Your task to perform on an android device: choose inbox layout in the gmail app Image 0: 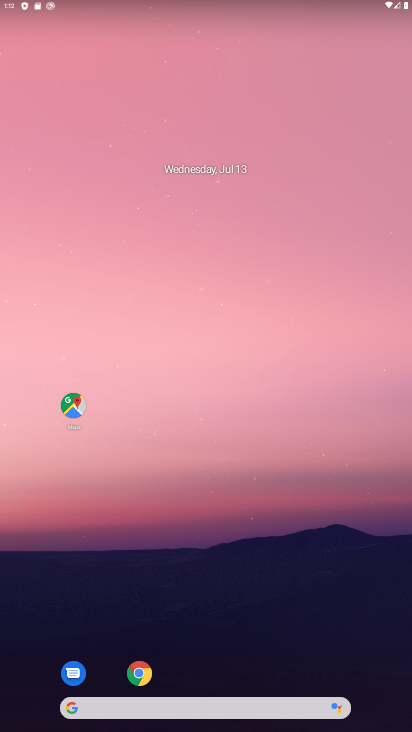
Step 0: drag from (203, 634) to (23, 445)
Your task to perform on an android device: choose inbox layout in the gmail app Image 1: 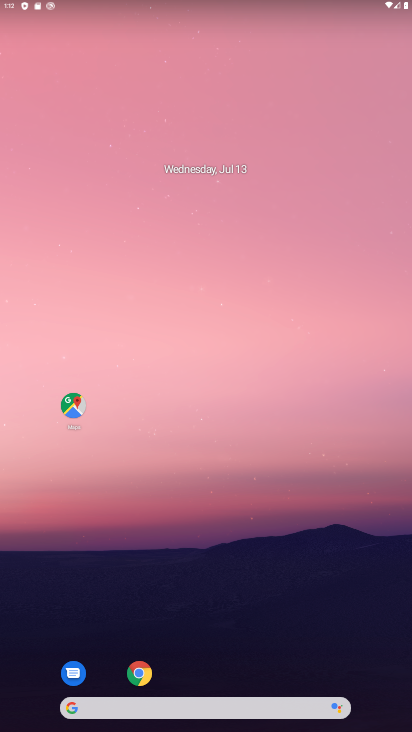
Step 1: click (128, 399)
Your task to perform on an android device: choose inbox layout in the gmail app Image 2: 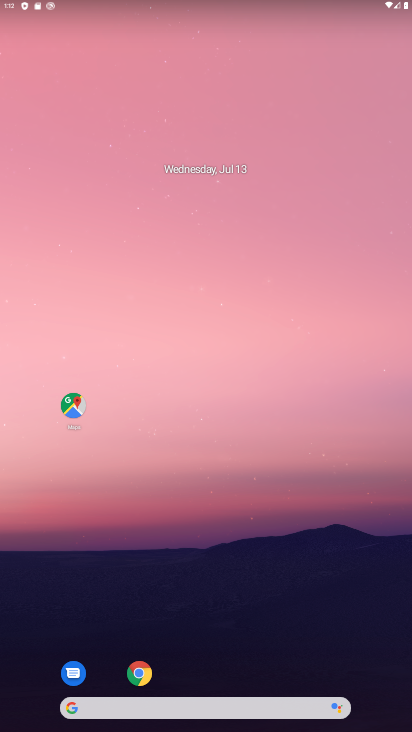
Step 2: drag from (226, 655) to (175, 92)
Your task to perform on an android device: choose inbox layout in the gmail app Image 3: 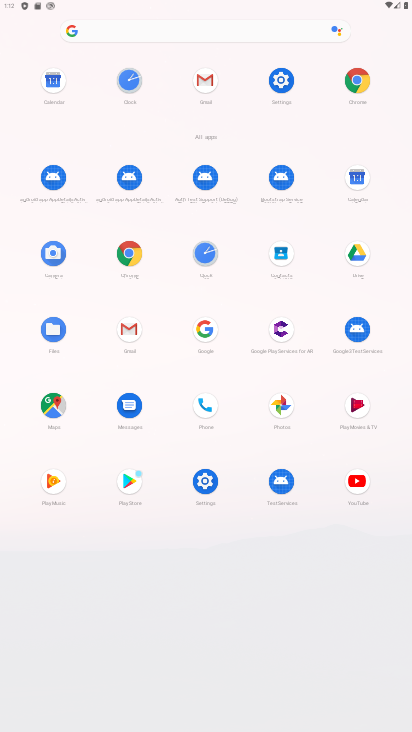
Step 3: click (128, 338)
Your task to perform on an android device: choose inbox layout in the gmail app Image 4: 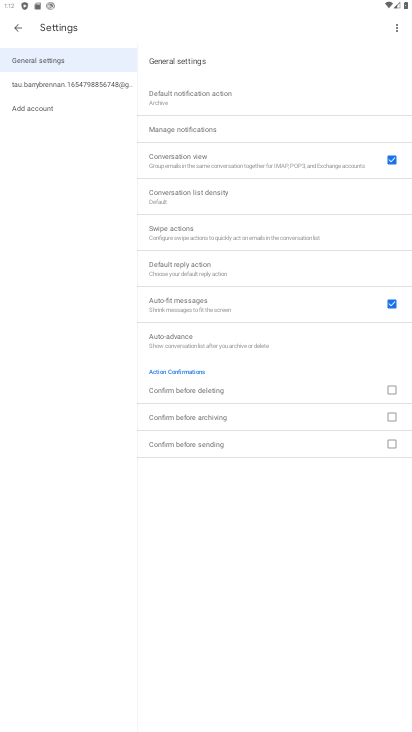
Step 4: click (66, 84)
Your task to perform on an android device: choose inbox layout in the gmail app Image 5: 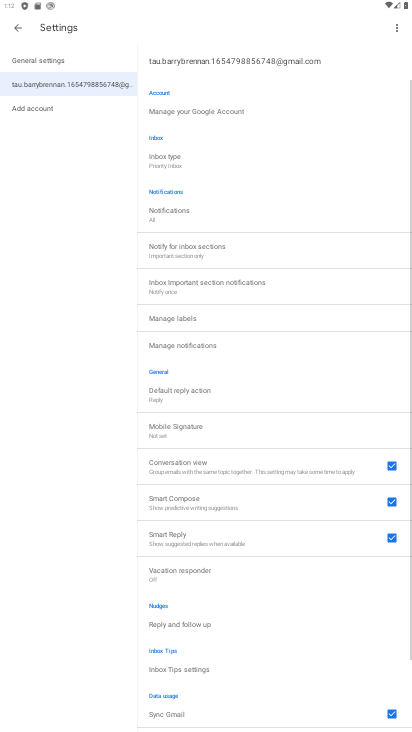
Step 5: click (169, 160)
Your task to perform on an android device: choose inbox layout in the gmail app Image 6: 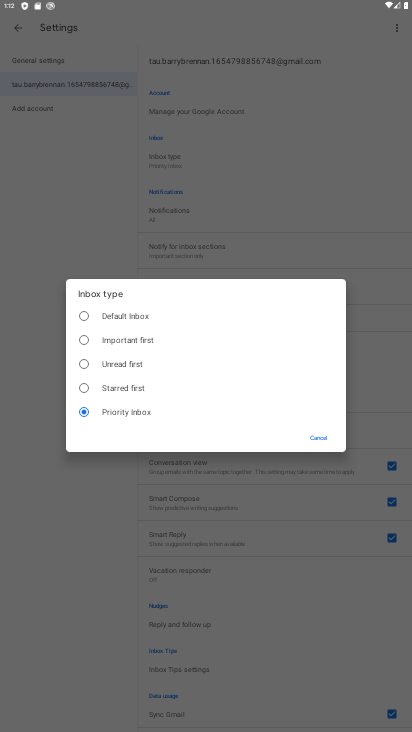
Step 6: click (122, 317)
Your task to perform on an android device: choose inbox layout in the gmail app Image 7: 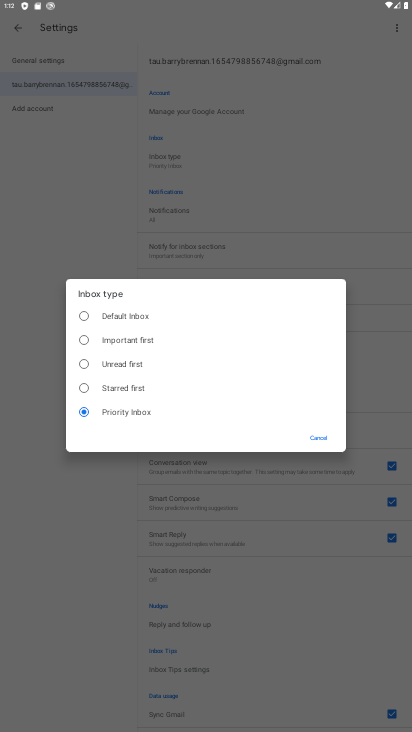
Step 7: click (70, 191)
Your task to perform on an android device: choose inbox layout in the gmail app Image 8: 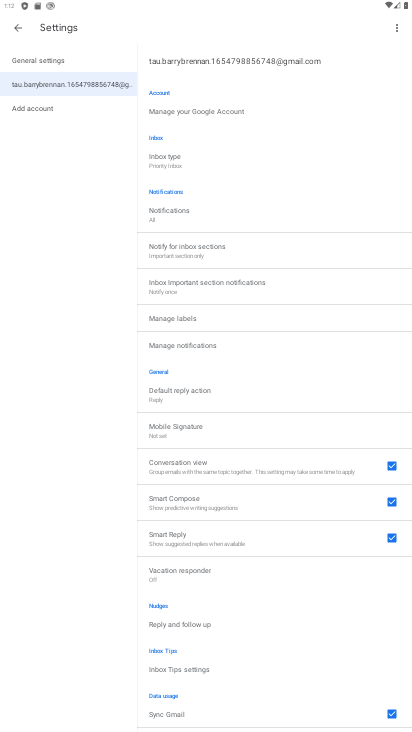
Step 8: click (42, 58)
Your task to perform on an android device: choose inbox layout in the gmail app Image 9: 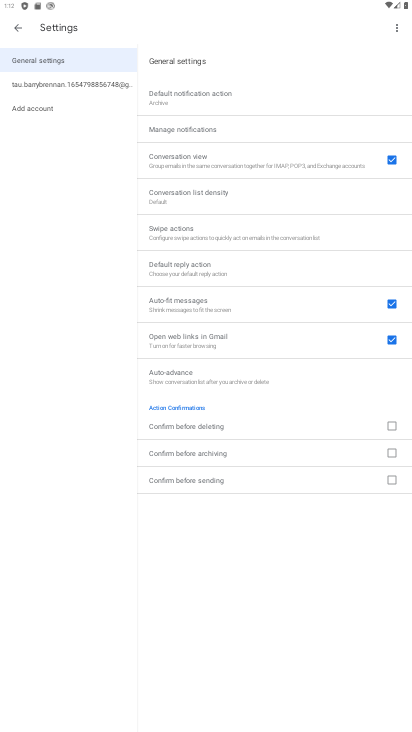
Step 9: click (55, 59)
Your task to perform on an android device: choose inbox layout in the gmail app Image 10: 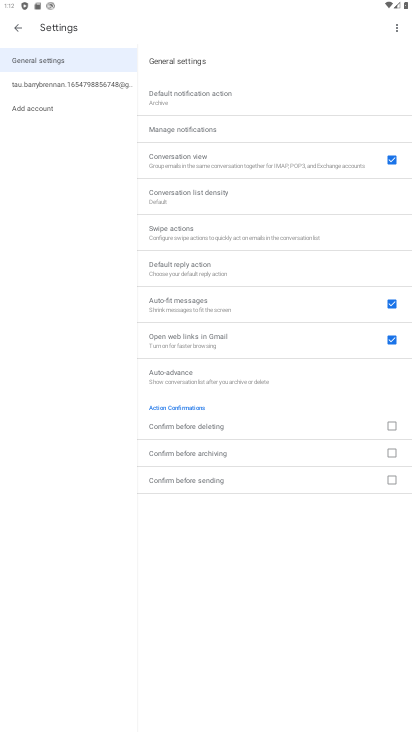
Step 10: click (25, 21)
Your task to perform on an android device: choose inbox layout in the gmail app Image 11: 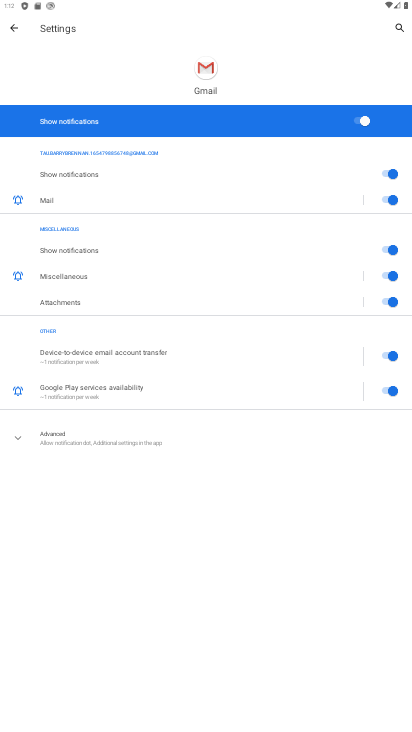
Step 11: click (24, 29)
Your task to perform on an android device: choose inbox layout in the gmail app Image 12: 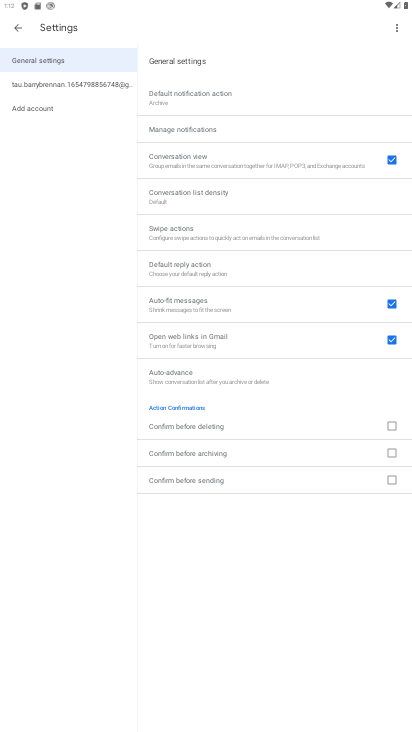
Step 12: click (15, 27)
Your task to perform on an android device: choose inbox layout in the gmail app Image 13: 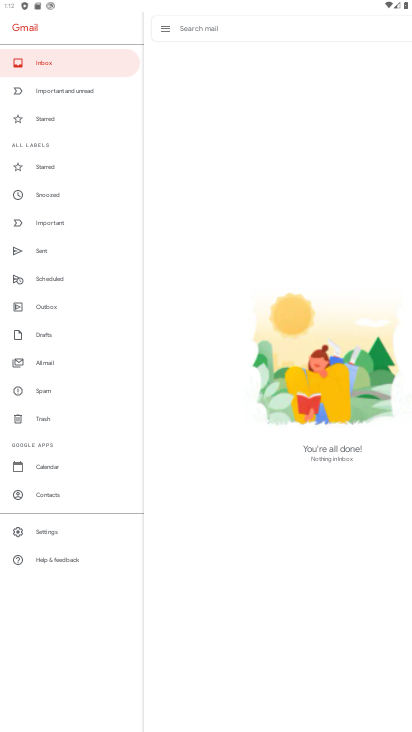
Step 13: click (44, 64)
Your task to perform on an android device: choose inbox layout in the gmail app Image 14: 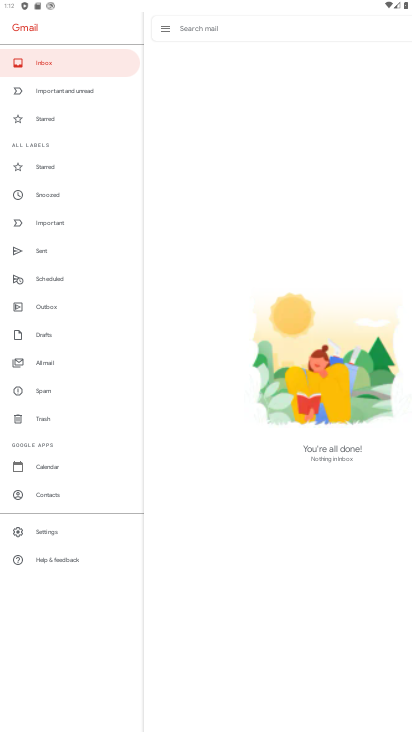
Step 14: task complete